Your task to perform on an android device: turn on bluetooth scan Image 0: 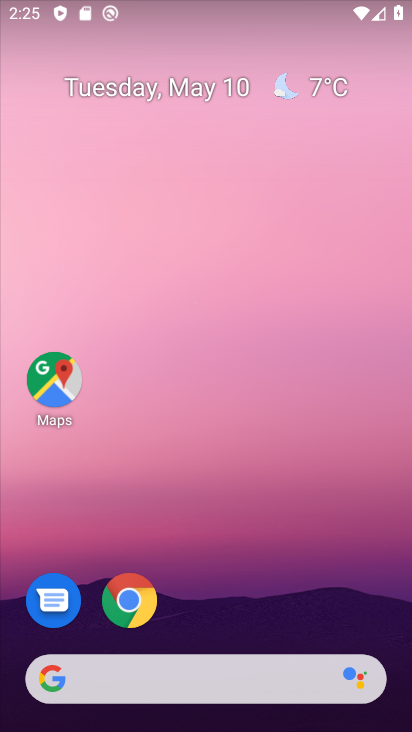
Step 0: drag from (228, 671) to (259, 83)
Your task to perform on an android device: turn on bluetooth scan Image 1: 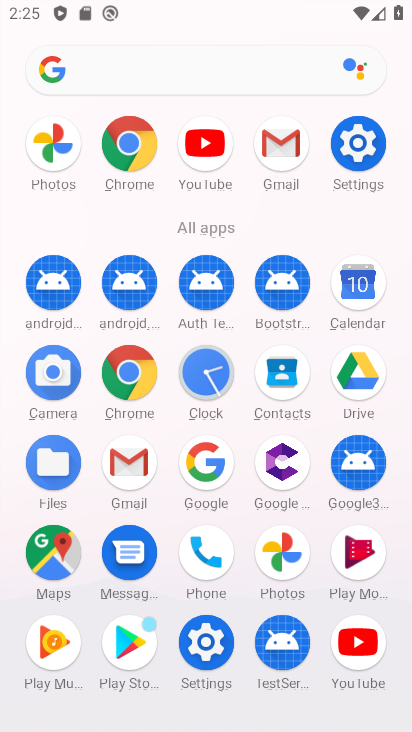
Step 1: click (351, 148)
Your task to perform on an android device: turn on bluetooth scan Image 2: 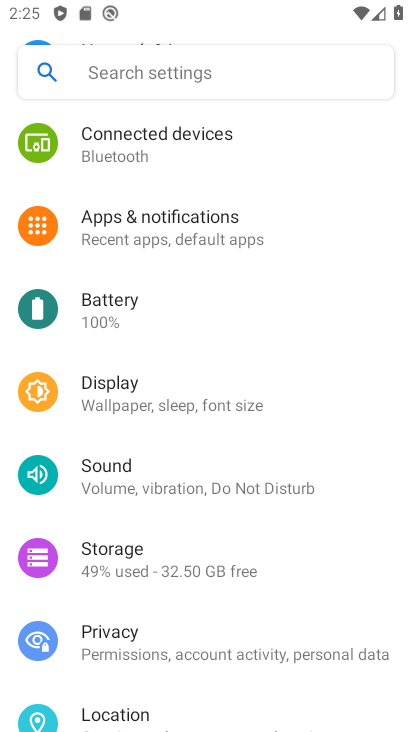
Step 2: click (137, 710)
Your task to perform on an android device: turn on bluetooth scan Image 3: 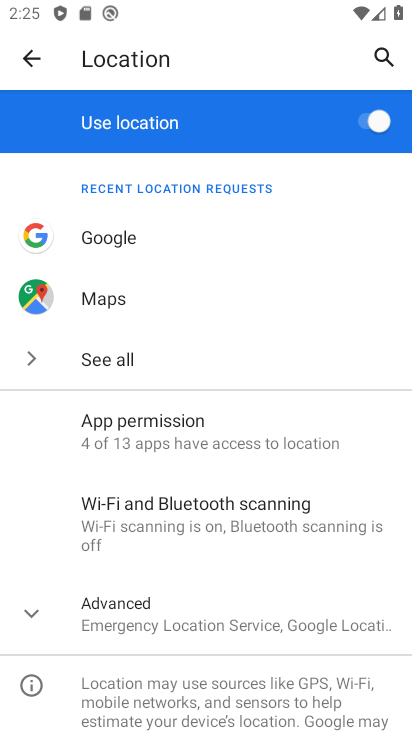
Step 3: click (275, 518)
Your task to perform on an android device: turn on bluetooth scan Image 4: 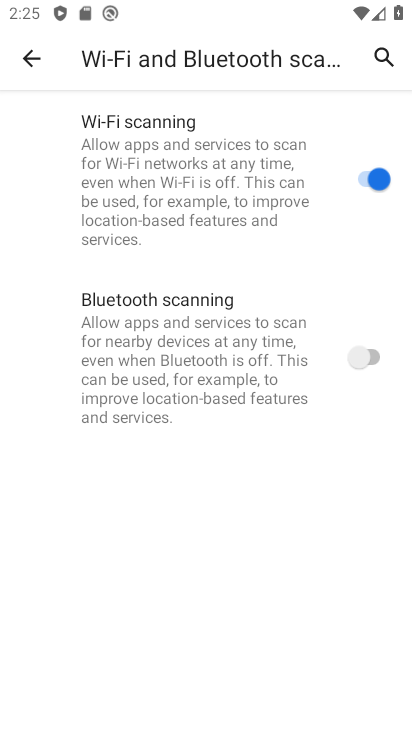
Step 4: click (372, 353)
Your task to perform on an android device: turn on bluetooth scan Image 5: 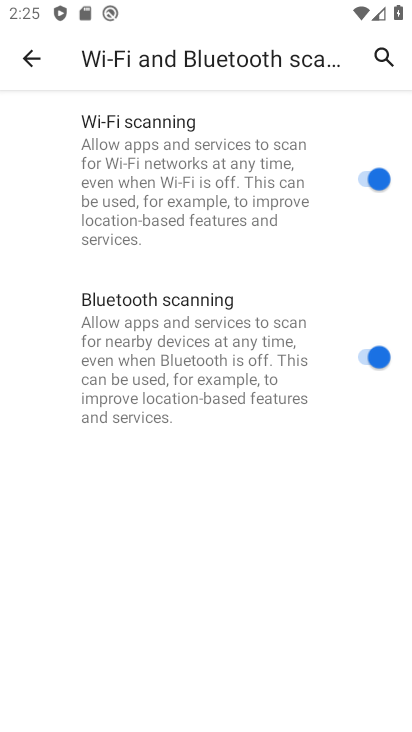
Step 5: task complete